Your task to perform on an android device: Go to sound settings Image 0: 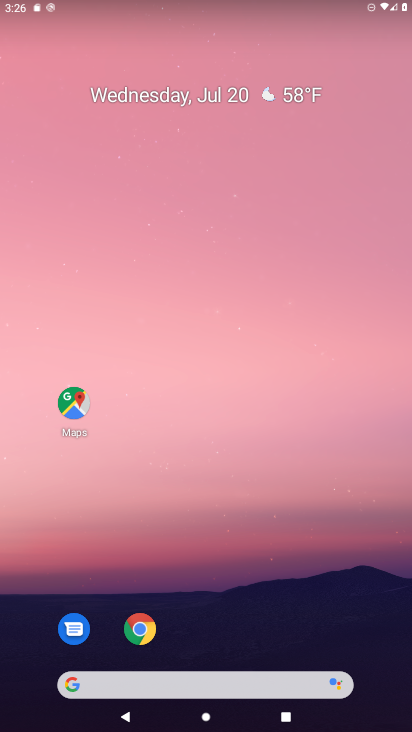
Step 0: drag from (209, 626) to (212, 87)
Your task to perform on an android device: Go to sound settings Image 1: 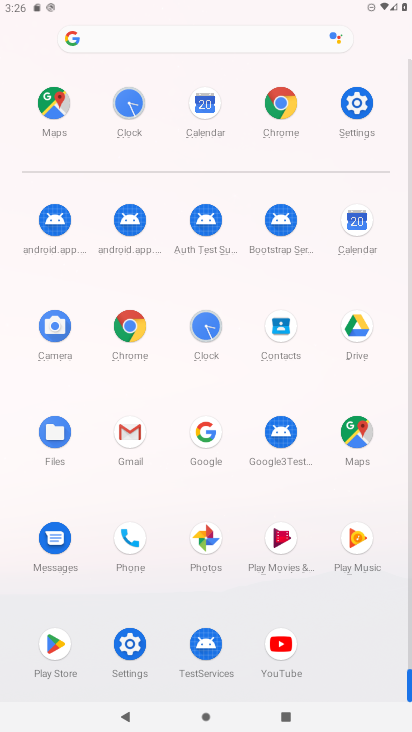
Step 1: click (120, 637)
Your task to perform on an android device: Go to sound settings Image 2: 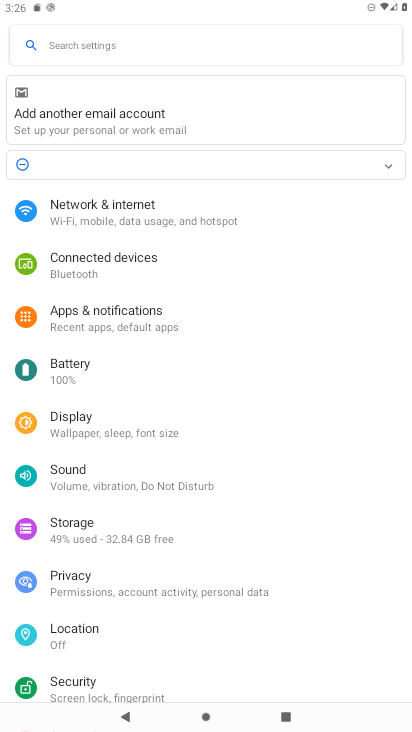
Step 2: click (63, 482)
Your task to perform on an android device: Go to sound settings Image 3: 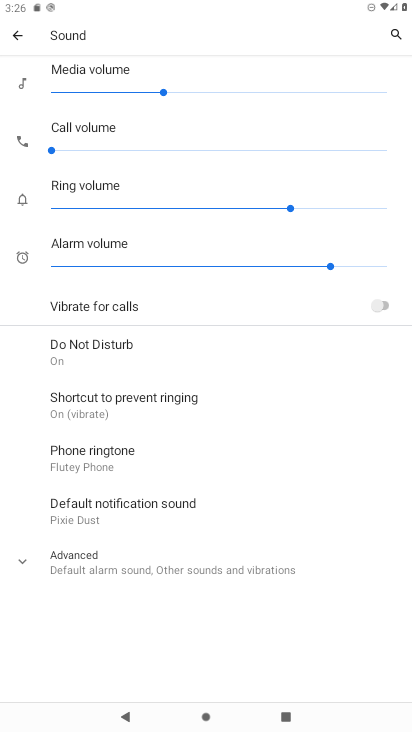
Step 3: task complete